Your task to perform on an android device: toggle data saver in the chrome app Image 0: 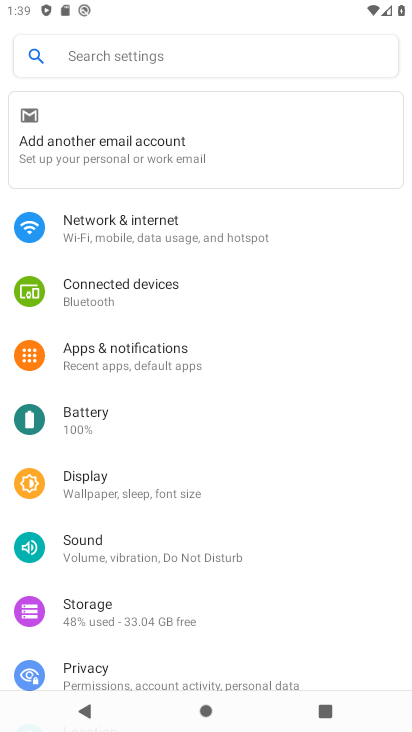
Step 0: press home button
Your task to perform on an android device: toggle data saver in the chrome app Image 1: 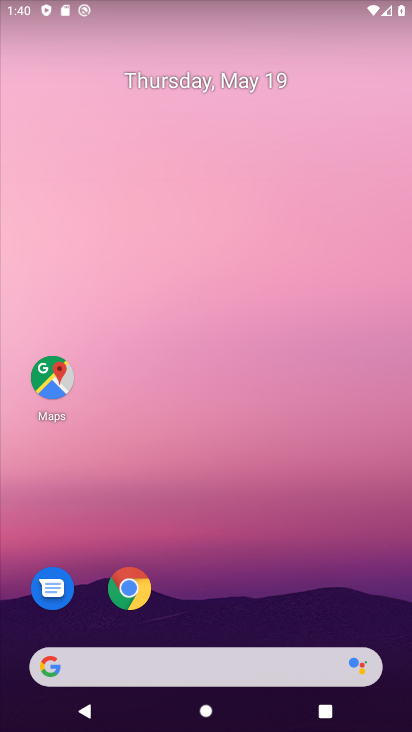
Step 1: click (133, 587)
Your task to perform on an android device: toggle data saver in the chrome app Image 2: 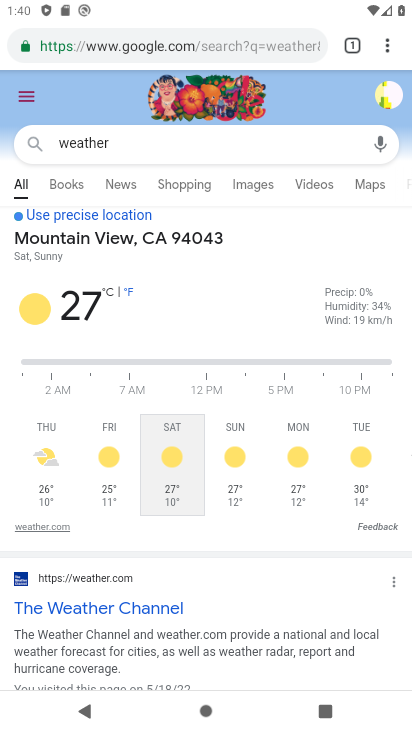
Step 2: drag from (388, 40) to (232, 512)
Your task to perform on an android device: toggle data saver in the chrome app Image 3: 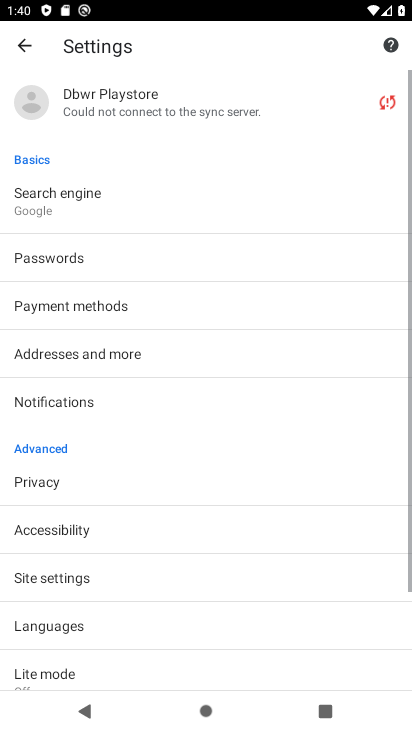
Step 3: drag from (187, 622) to (179, 63)
Your task to perform on an android device: toggle data saver in the chrome app Image 4: 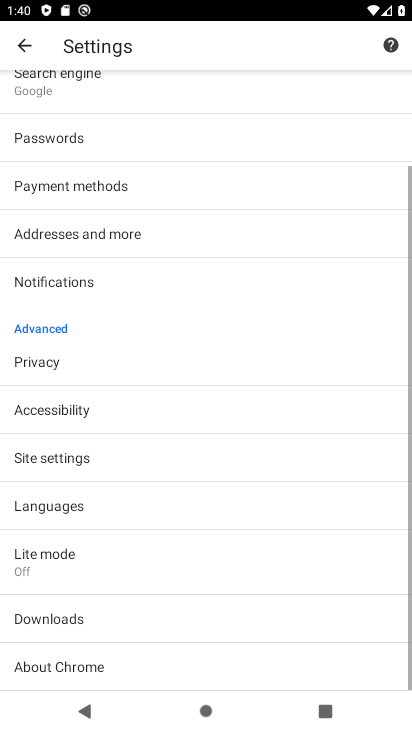
Step 4: click (62, 575)
Your task to perform on an android device: toggle data saver in the chrome app Image 5: 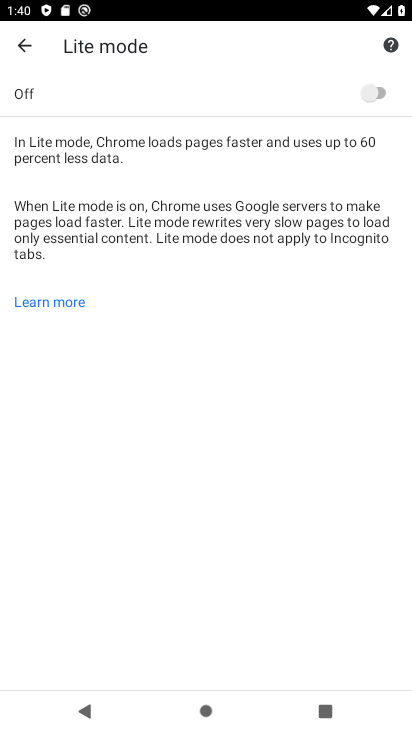
Step 5: click (362, 89)
Your task to perform on an android device: toggle data saver in the chrome app Image 6: 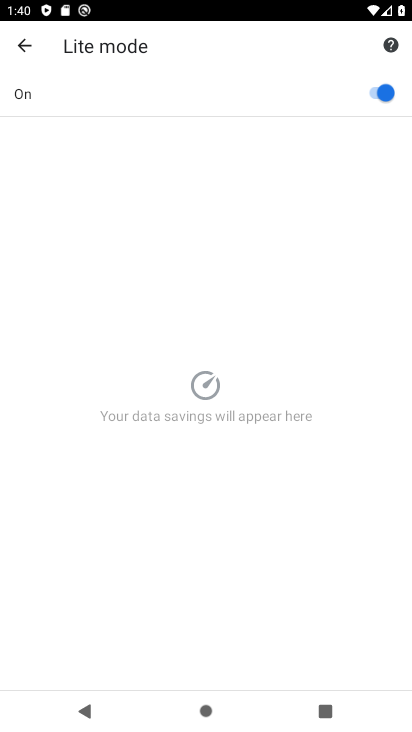
Step 6: task complete